Your task to perform on an android device: Open location settings Image 0: 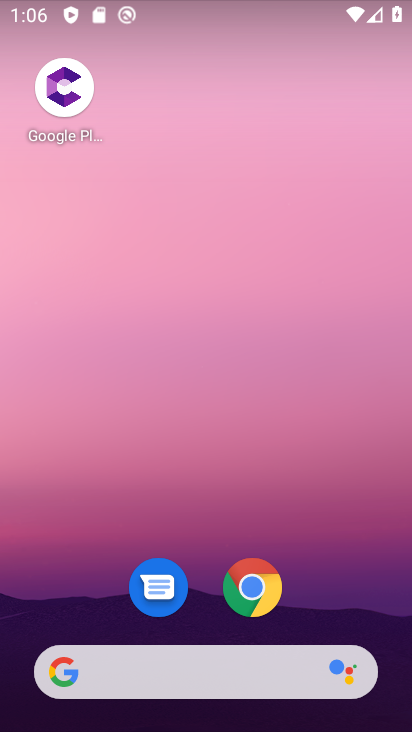
Step 0: drag from (310, 634) to (202, 272)
Your task to perform on an android device: Open location settings Image 1: 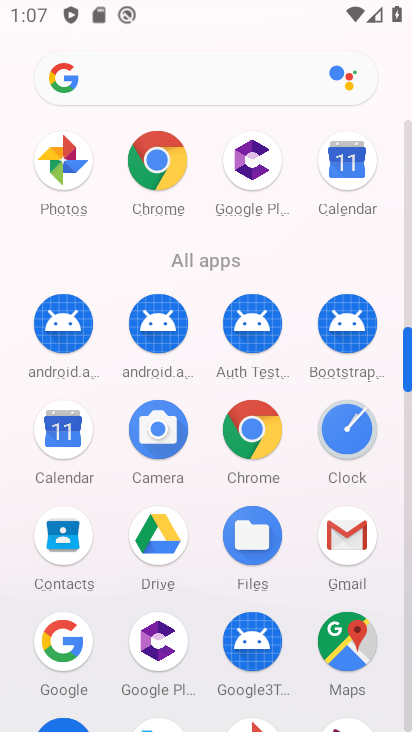
Step 1: drag from (192, 570) to (222, 243)
Your task to perform on an android device: Open location settings Image 2: 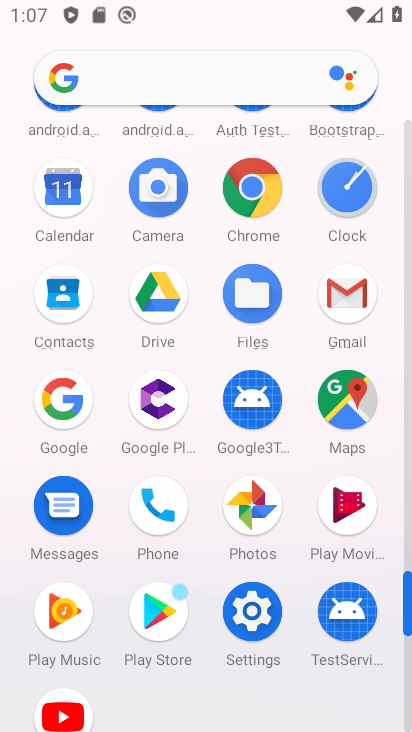
Step 2: click (253, 644)
Your task to perform on an android device: Open location settings Image 3: 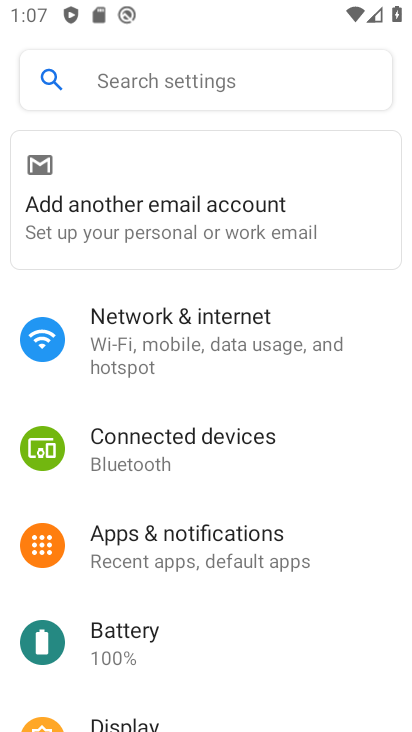
Step 3: drag from (227, 622) to (230, 307)
Your task to perform on an android device: Open location settings Image 4: 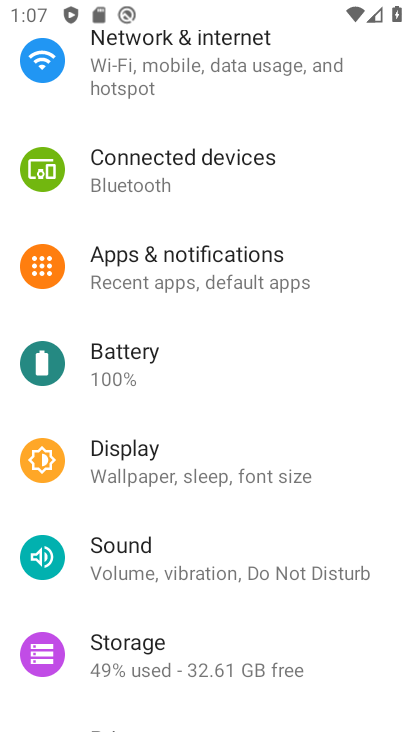
Step 4: drag from (151, 661) to (153, 337)
Your task to perform on an android device: Open location settings Image 5: 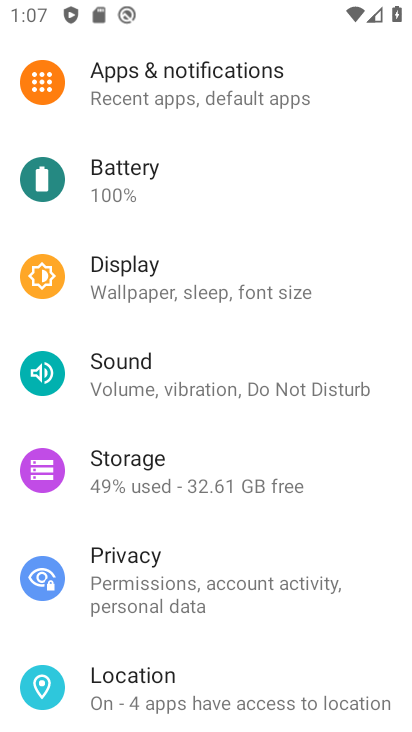
Step 5: click (96, 675)
Your task to perform on an android device: Open location settings Image 6: 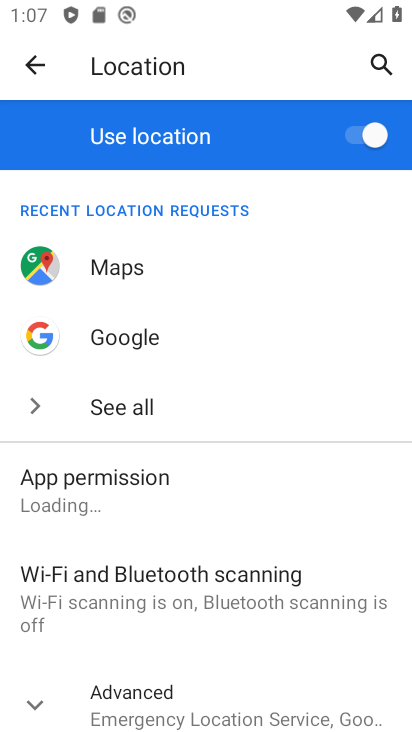
Step 6: task complete